Your task to perform on an android device: turn off priority inbox in the gmail app Image 0: 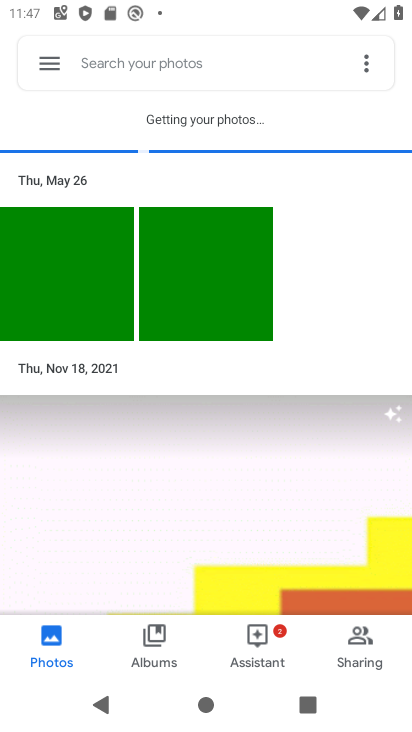
Step 0: press home button
Your task to perform on an android device: turn off priority inbox in the gmail app Image 1: 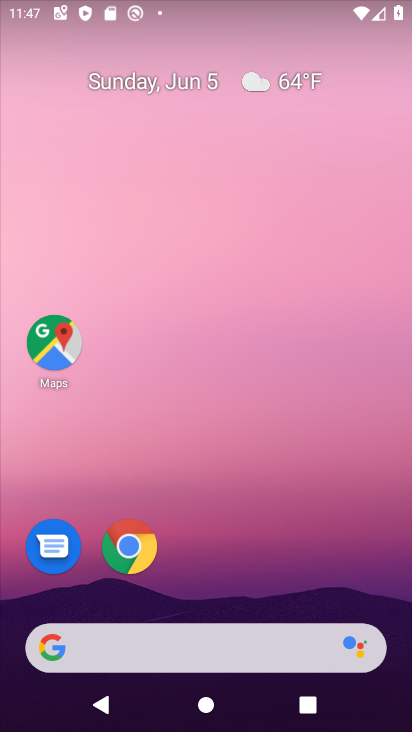
Step 1: drag from (232, 600) to (217, 296)
Your task to perform on an android device: turn off priority inbox in the gmail app Image 2: 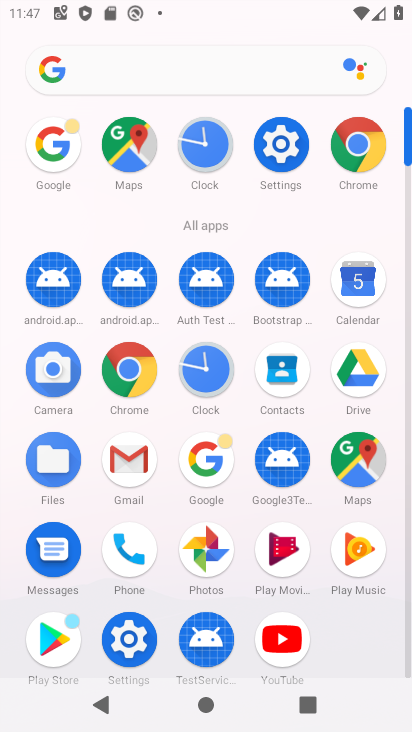
Step 2: click (115, 453)
Your task to perform on an android device: turn off priority inbox in the gmail app Image 3: 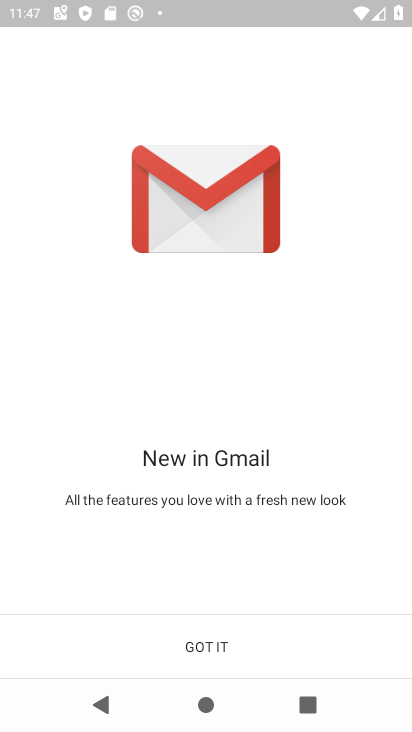
Step 3: click (269, 630)
Your task to perform on an android device: turn off priority inbox in the gmail app Image 4: 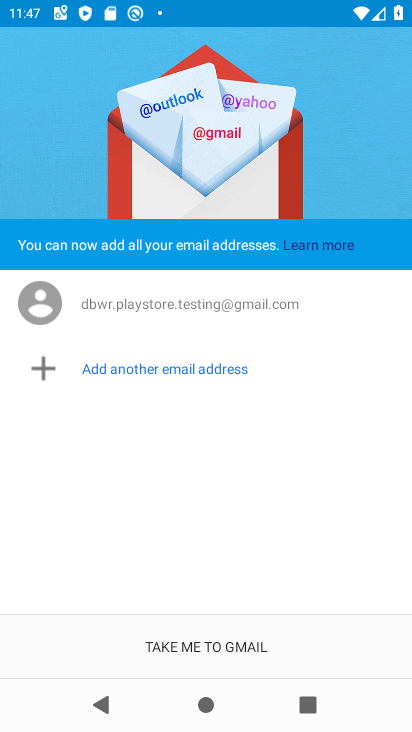
Step 4: click (219, 640)
Your task to perform on an android device: turn off priority inbox in the gmail app Image 5: 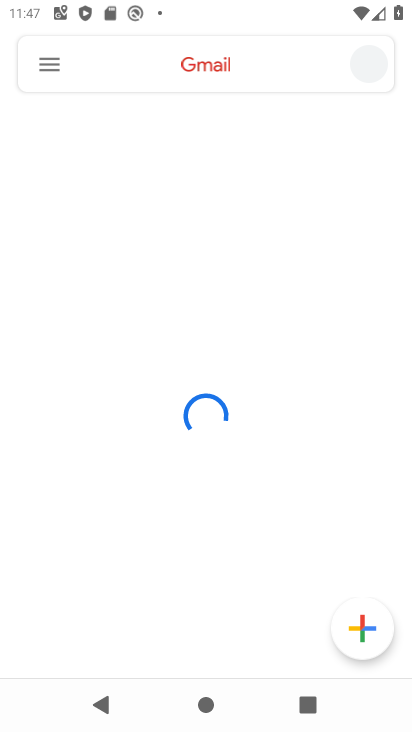
Step 5: click (50, 55)
Your task to perform on an android device: turn off priority inbox in the gmail app Image 6: 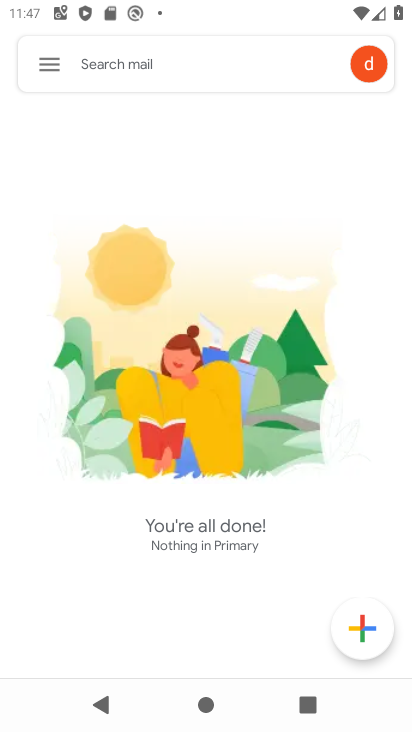
Step 6: click (51, 67)
Your task to perform on an android device: turn off priority inbox in the gmail app Image 7: 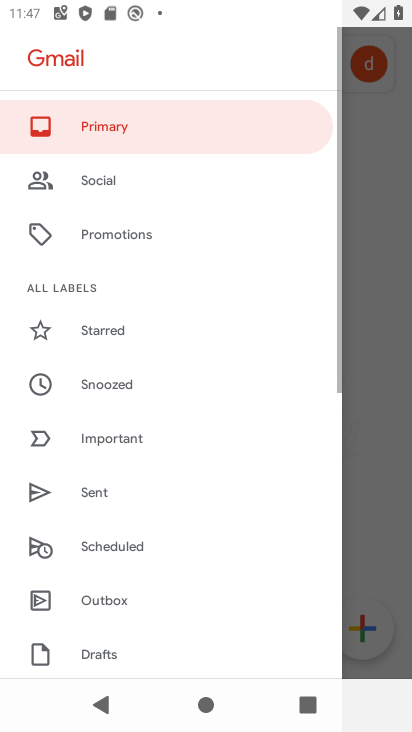
Step 7: drag from (172, 597) to (212, 235)
Your task to perform on an android device: turn off priority inbox in the gmail app Image 8: 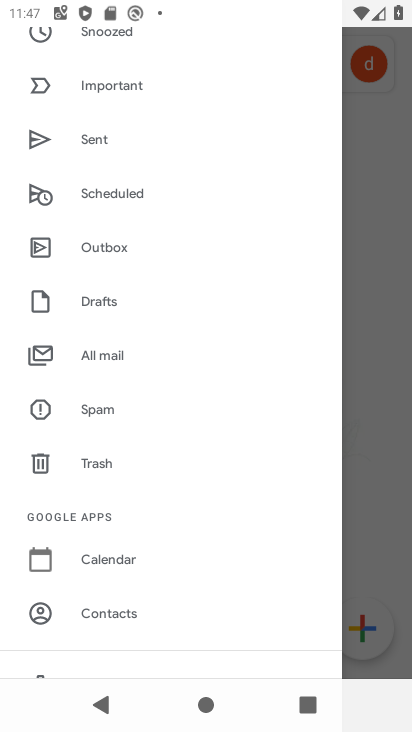
Step 8: drag from (126, 610) to (154, 233)
Your task to perform on an android device: turn off priority inbox in the gmail app Image 9: 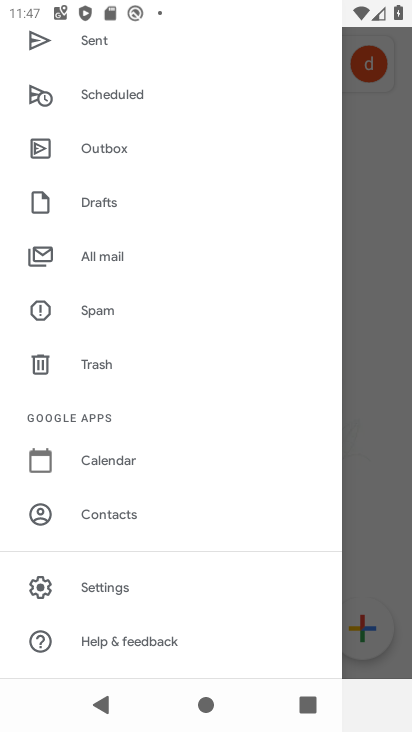
Step 9: click (95, 587)
Your task to perform on an android device: turn off priority inbox in the gmail app Image 10: 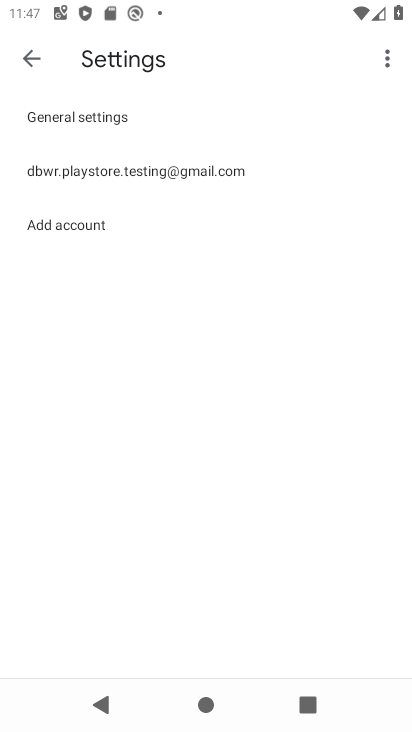
Step 10: click (102, 161)
Your task to perform on an android device: turn off priority inbox in the gmail app Image 11: 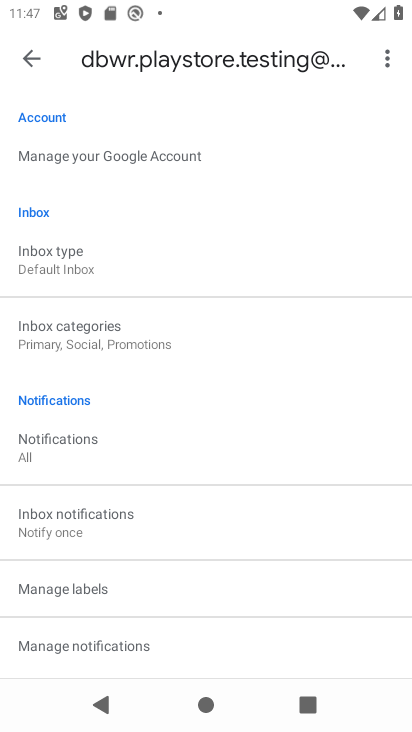
Step 11: click (91, 270)
Your task to perform on an android device: turn off priority inbox in the gmail app Image 12: 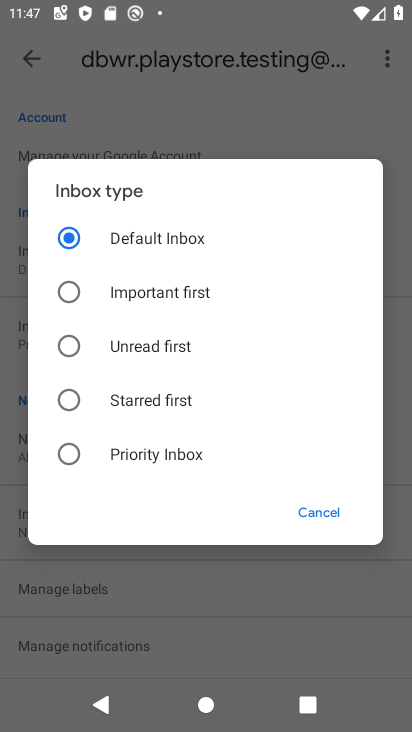
Step 12: click (155, 457)
Your task to perform on an android device: turn off priority inbox in the gmail app Image 13: 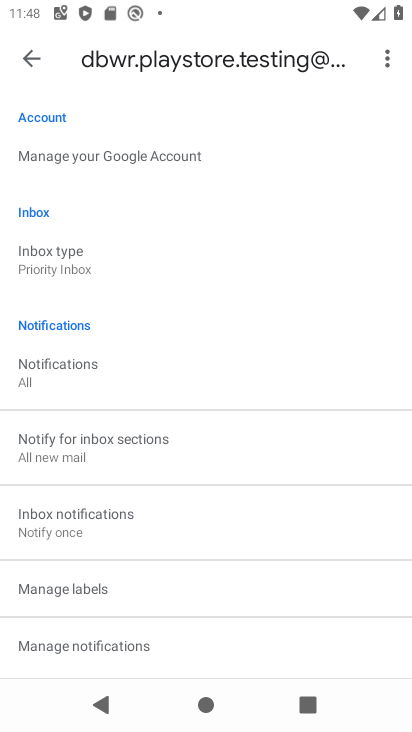
Step 13: task complete